Your task to perform on an android device: open app "Adobe Express: Graphic Design" (install if not already installed) and enter user name: "deliveries@gmail.com" and password: "regimentation" Image 0: 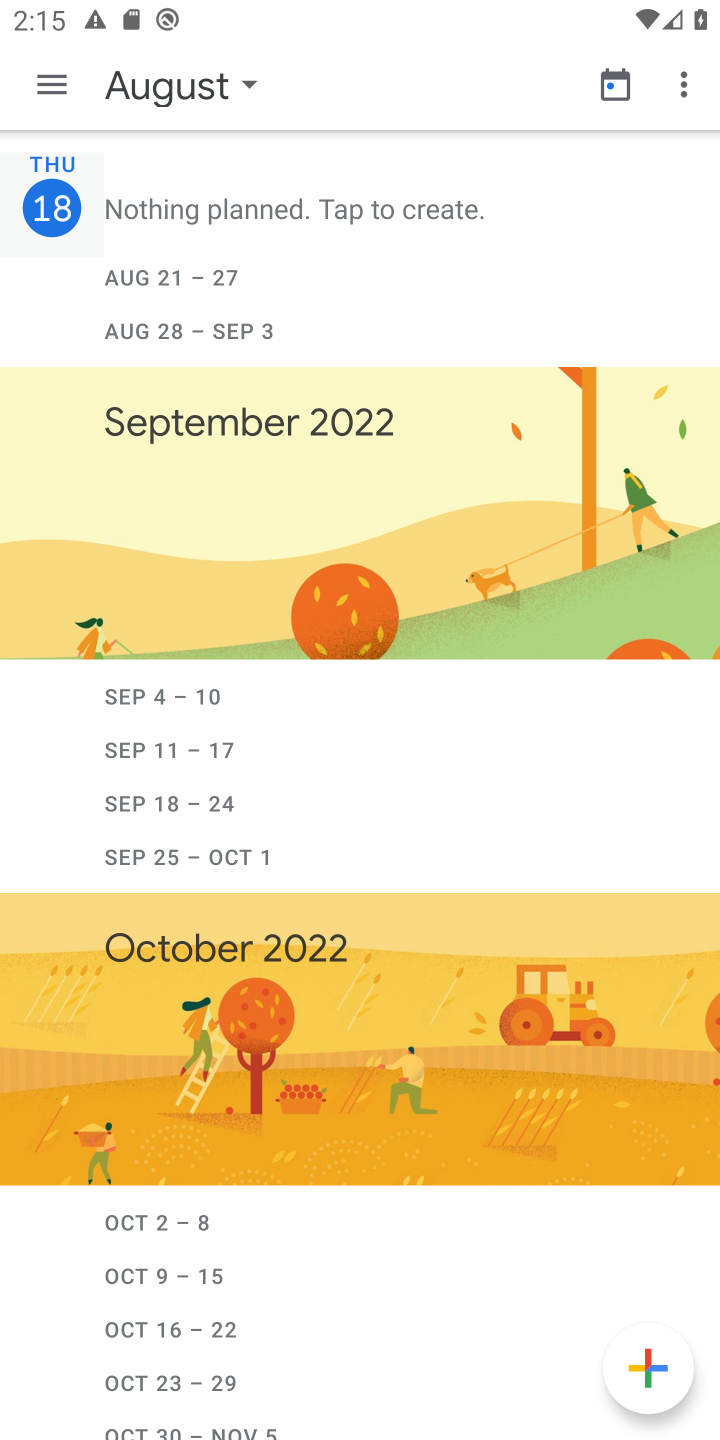
Step 0: press home button
Your task to perform on an android device: open app "Adobe Express: Graphic Design" (install if not already installed) and enter user name: "deliveries@gmail.com" and password: "regimentation" Image 1: 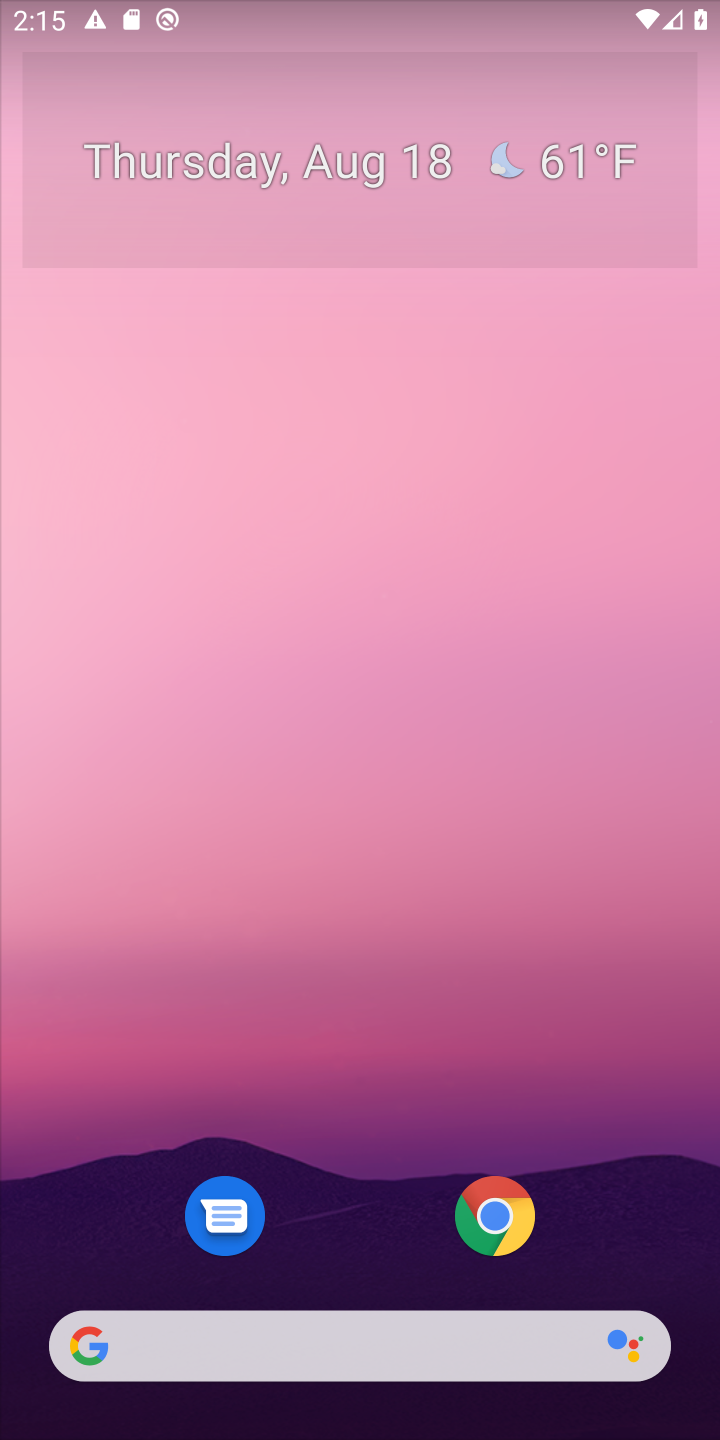
Step 1: drag from (653, 1135) to (608, 275)
Your task to perform on an android device: open app "Adobe Express: Graphic Design" (install if not already installed) and enter user name: "deliveries@gmail.com" and password: "regimentation" Image 2: 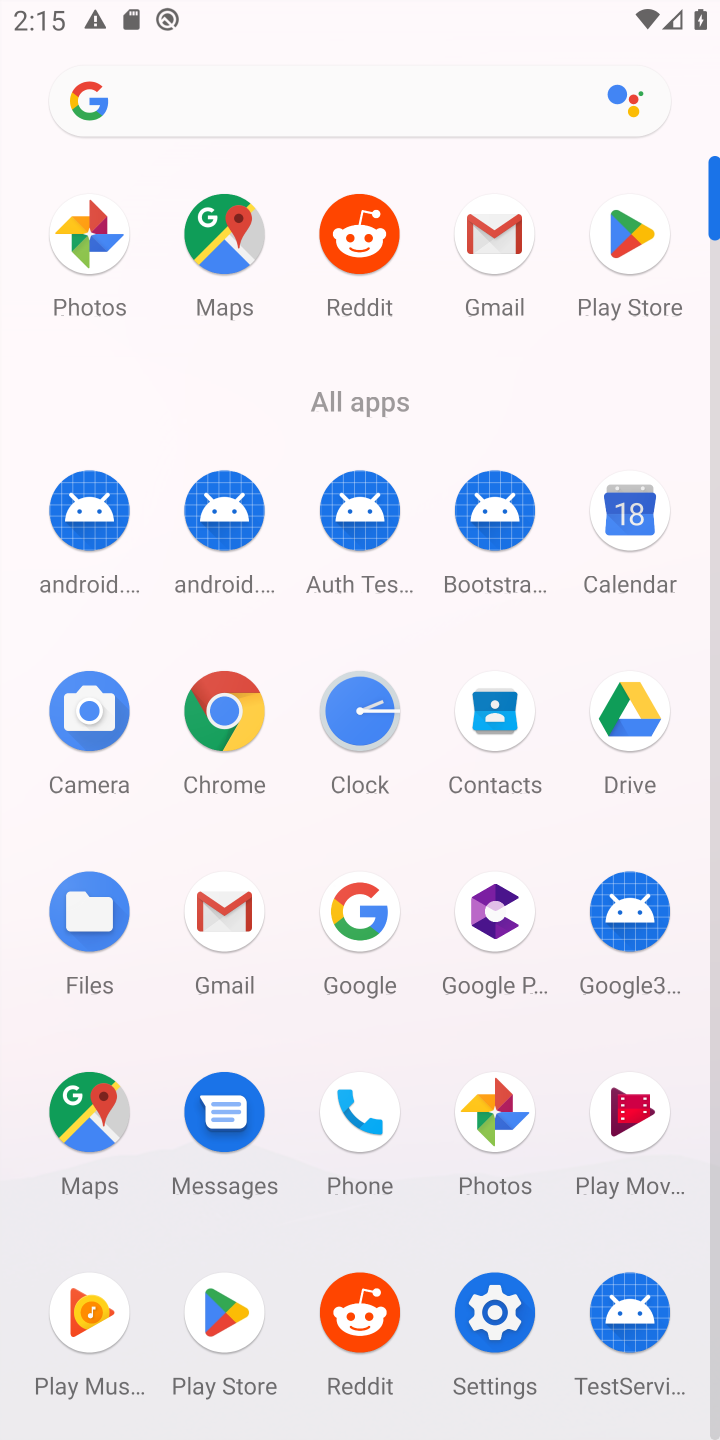
Step 2: click (223, 1312)
Your task to perform on an android device: open app "Adobe Express: Graphic Design" (install if not already installed) and enter user name: "deliveries@gmail.com" and password: "regimentation" Image 3: 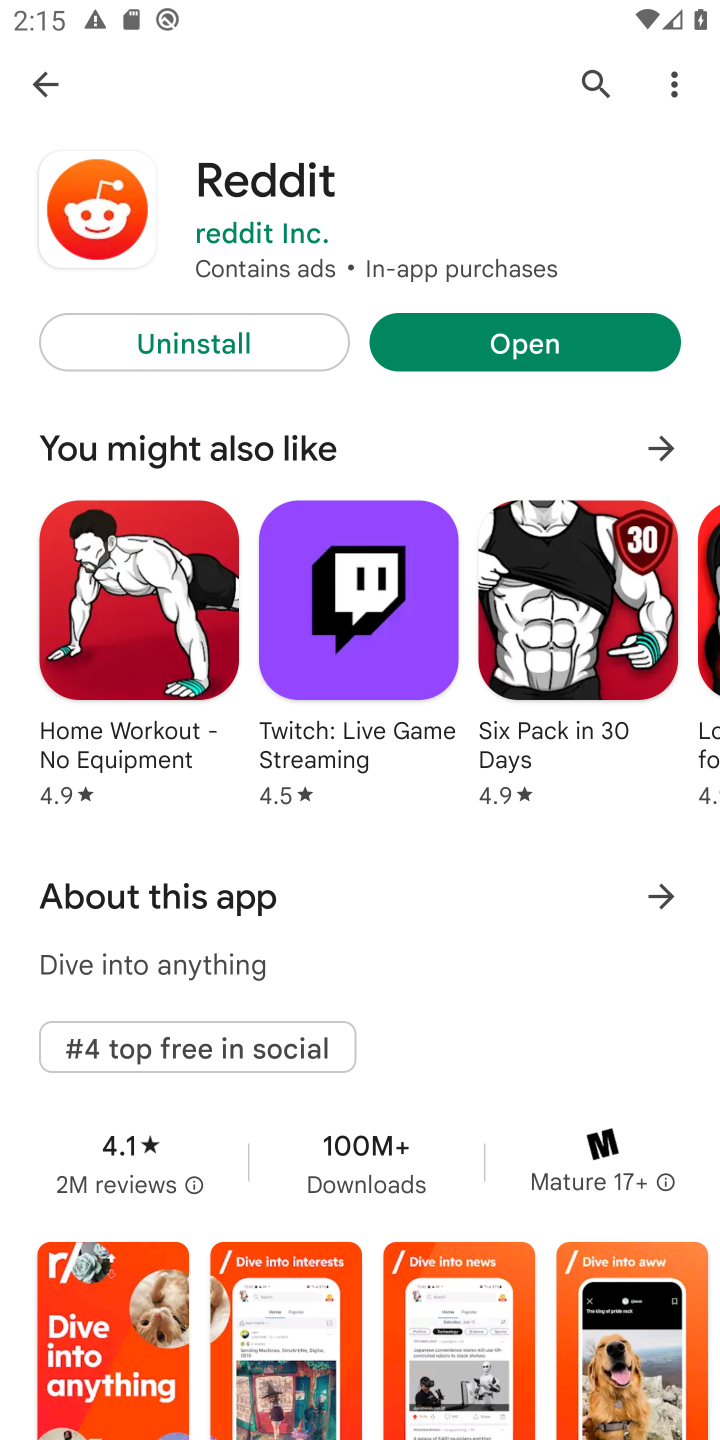
Step 3: click (588, 71)
Your task to perform on an android device: open app "Adobe Express: Graphic Design" (install if not already installed) and enter user name: "deliveries@gmail.com" and password: "regimentation" Image 4: 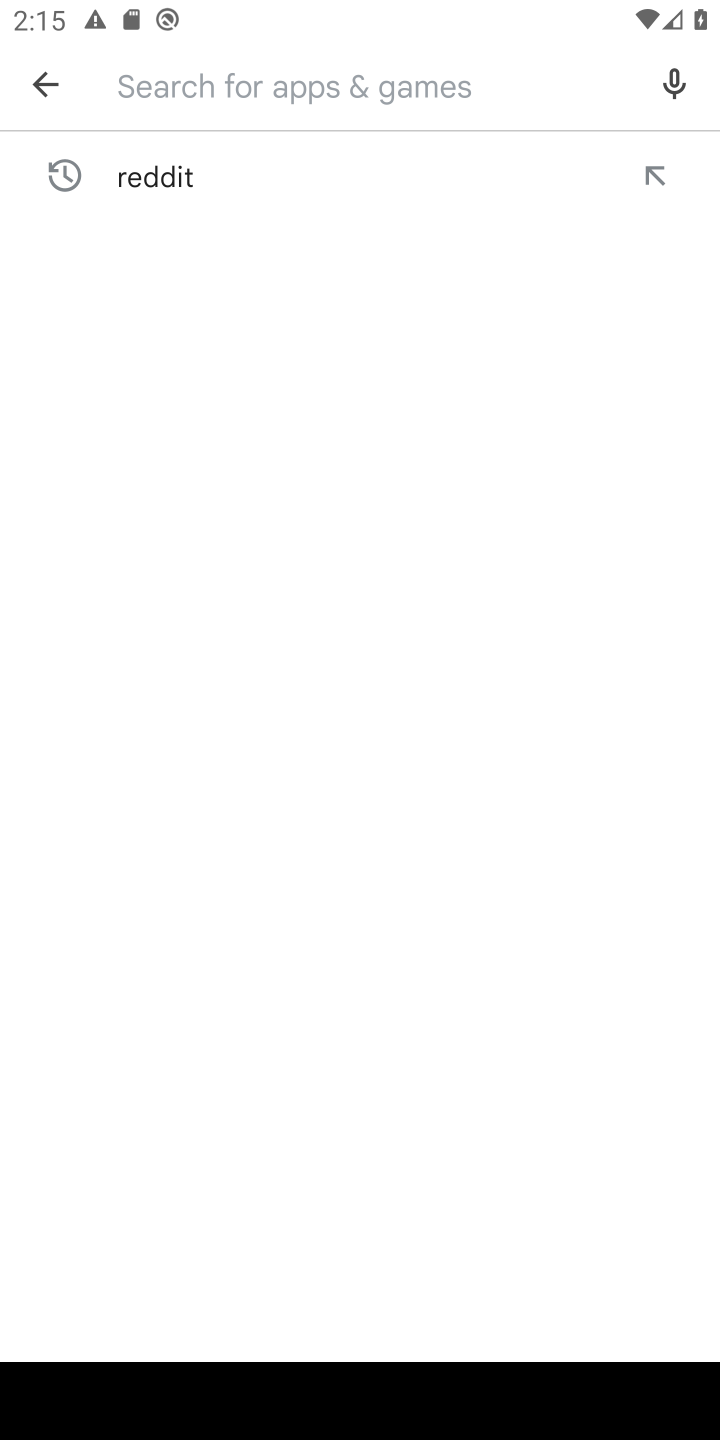
Step 4: type "Adobe Express: Graphic Design"
Your task to perform on an android device: open app "Adobe Express: Graphic Design" (install if not already installed) and enter user name: "deliveries@gmail.com" and password: "regimentation" Image 5: 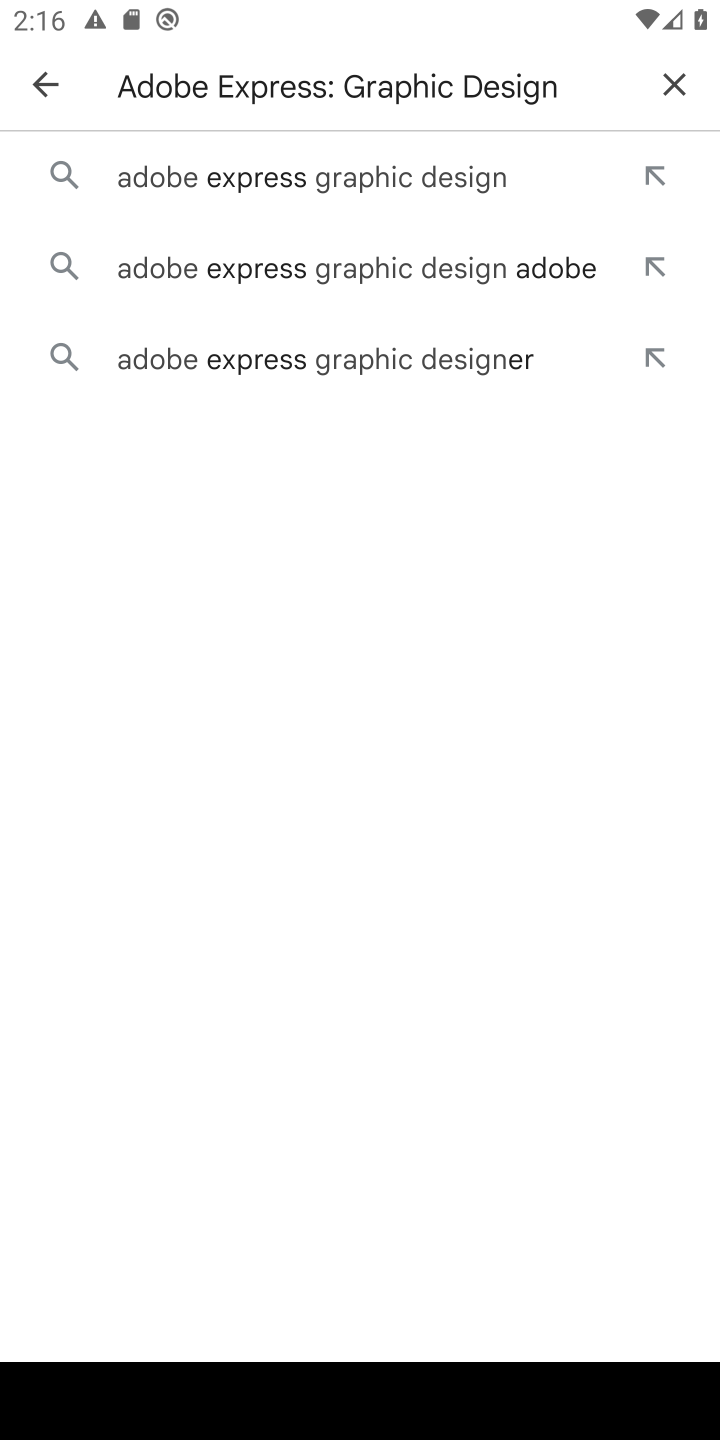
Step 5: click (286, 159)
Your task to perform on an android device: open app "Adobe Express: Graphic Design" (install if not already installed) and enter user name: "deliveries@gmail.com" and password: "regimentation" Image 6: 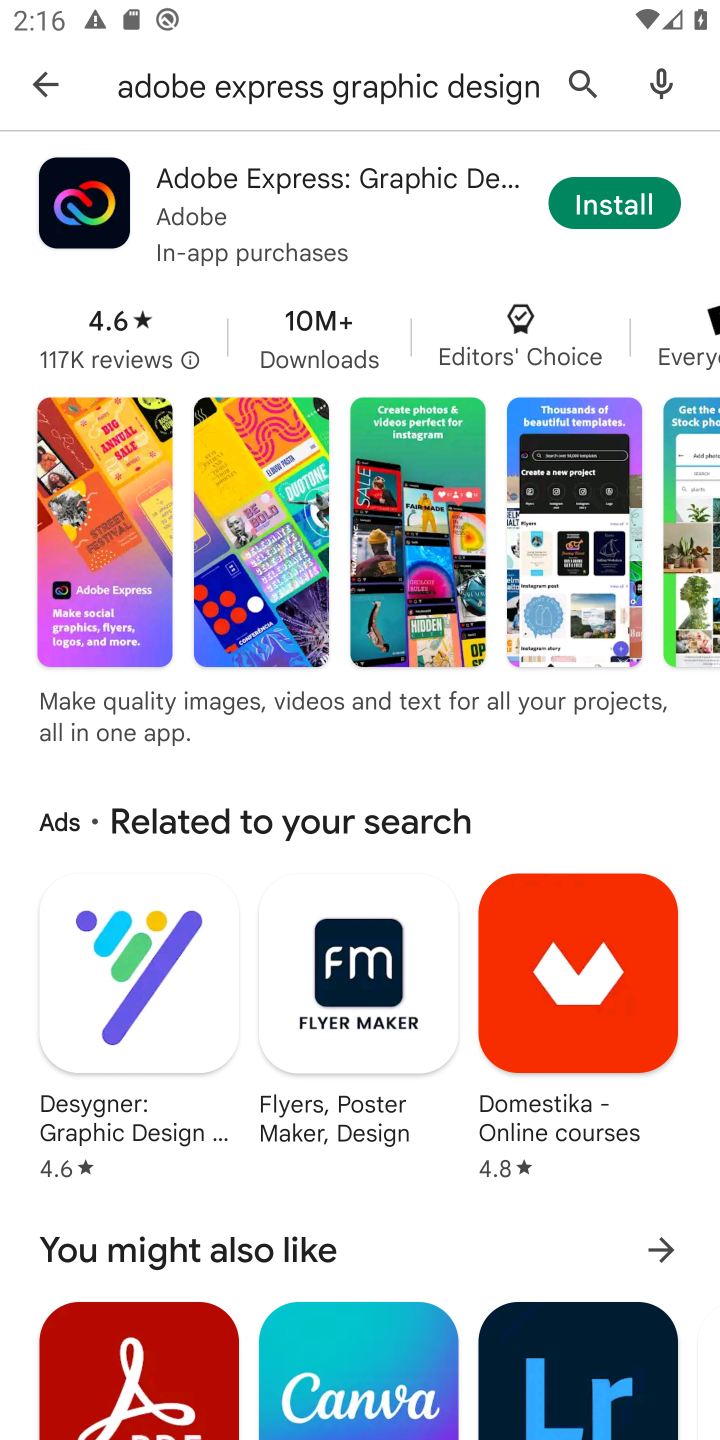
Step 6: click (607, 206)
Your task to perform on an android device: open app "Adobe Express: Graphic Design" (install if not already installed) and enter user name: "deliveries@gmail.com" and password: "regimentation" Image 7: 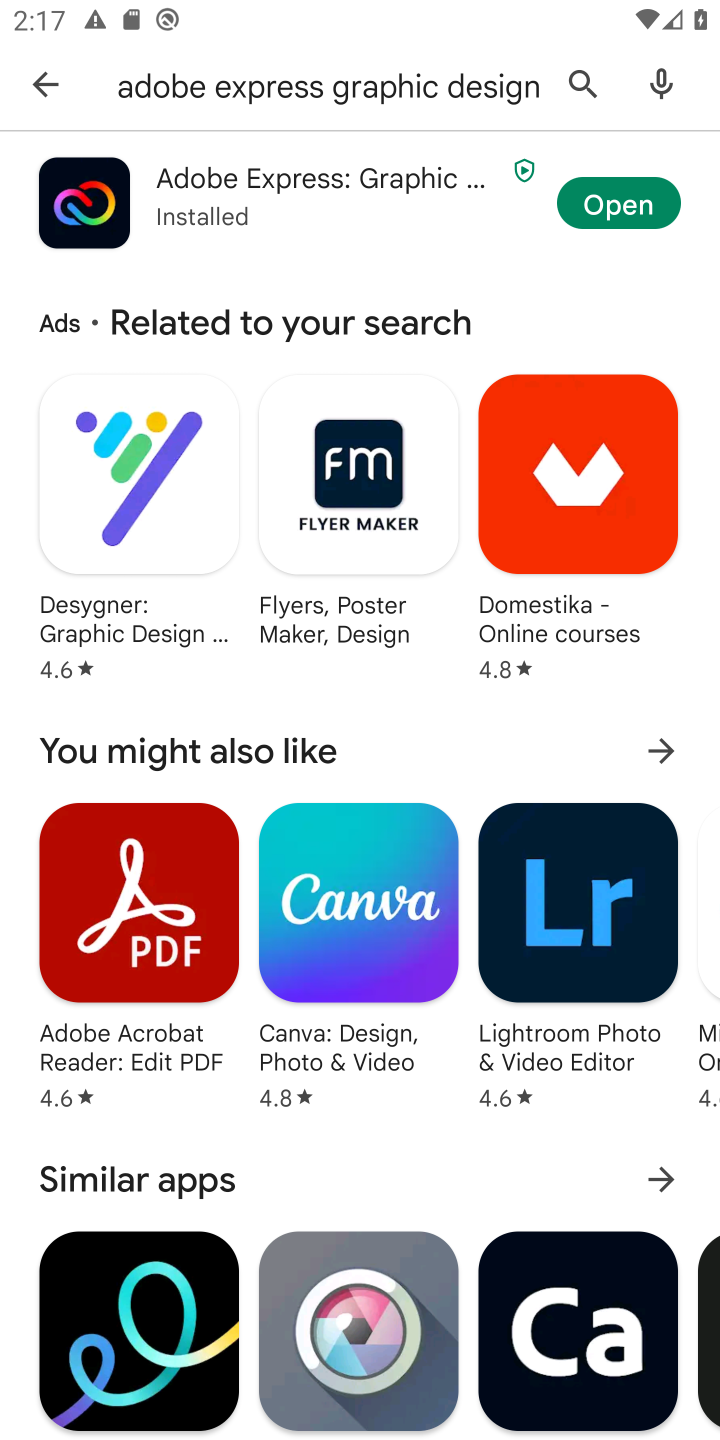
Step 7: click (614, 200)
Your task to perform on an android device: open app "Adobe Express: Graphic Design" (install if not already installed) and enter user name: "deliveries@gmail.com" and password: "regimentation" Image 8: 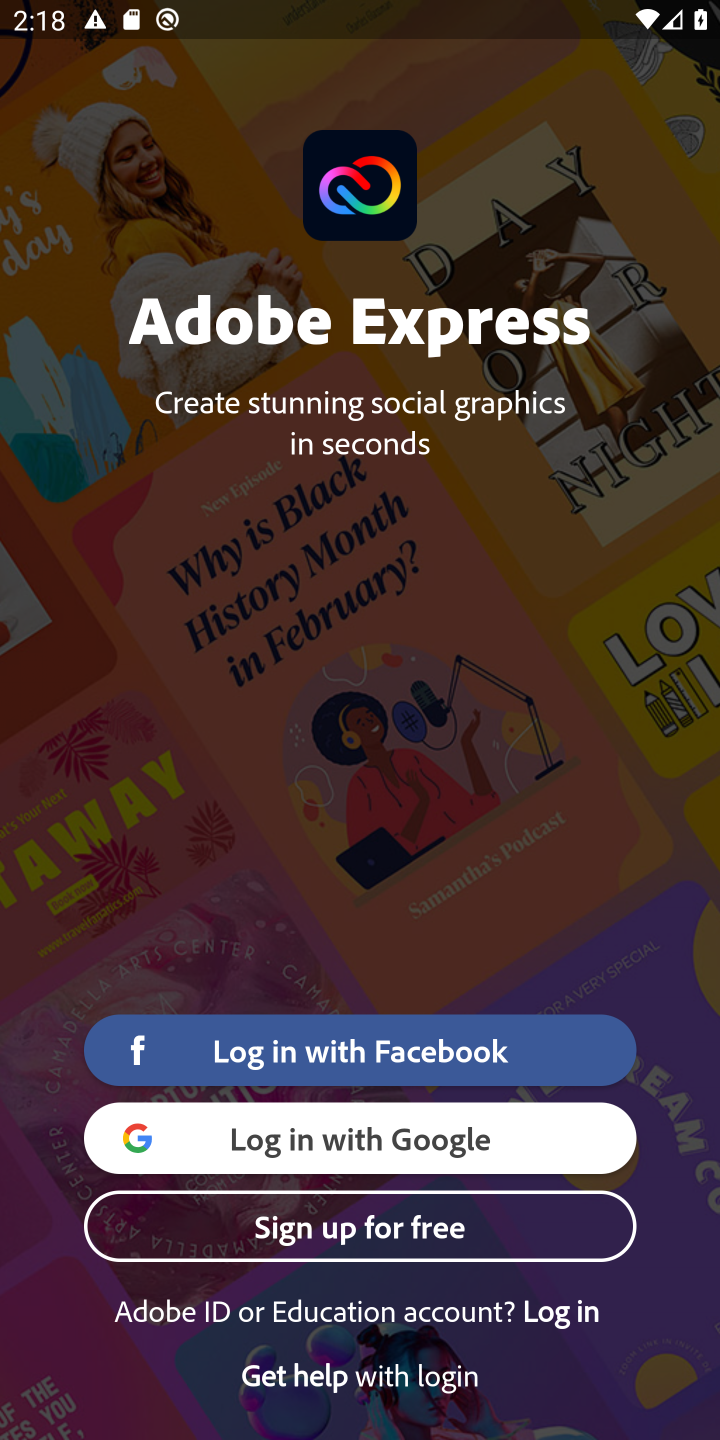
Step 8: click (561, 1315)
Your task to perform on an android device: open app "Adobe Express: Graphic Design" (install if not already installed) and enter user name: "deliveries@gmail.com" and password: "regimentation" Image 9: 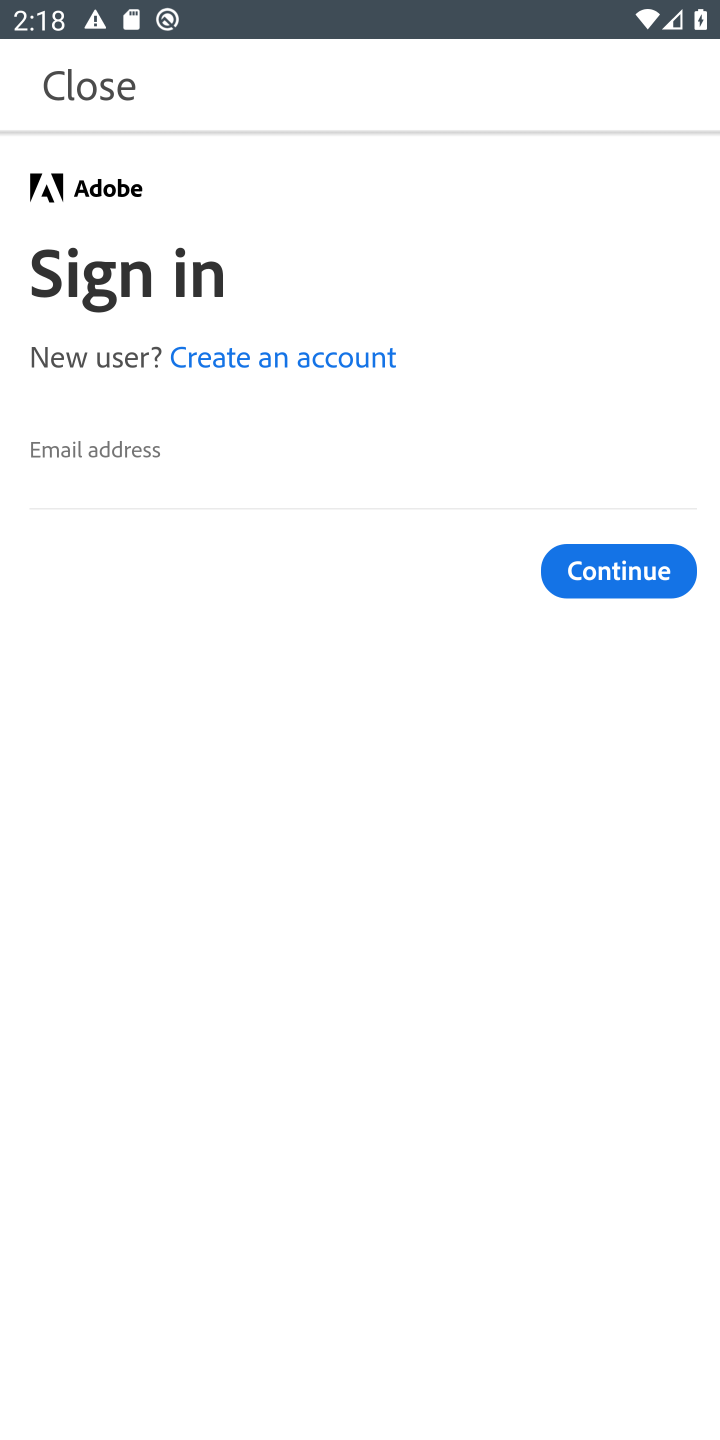
Step 9: click (160, 423)
Your task to perform on an android device: open app "Adobe Express: Graphic Design" (install if not already installed) and enter user name: "deliveries@gmail.com" and password: "regimentation" Image 10: 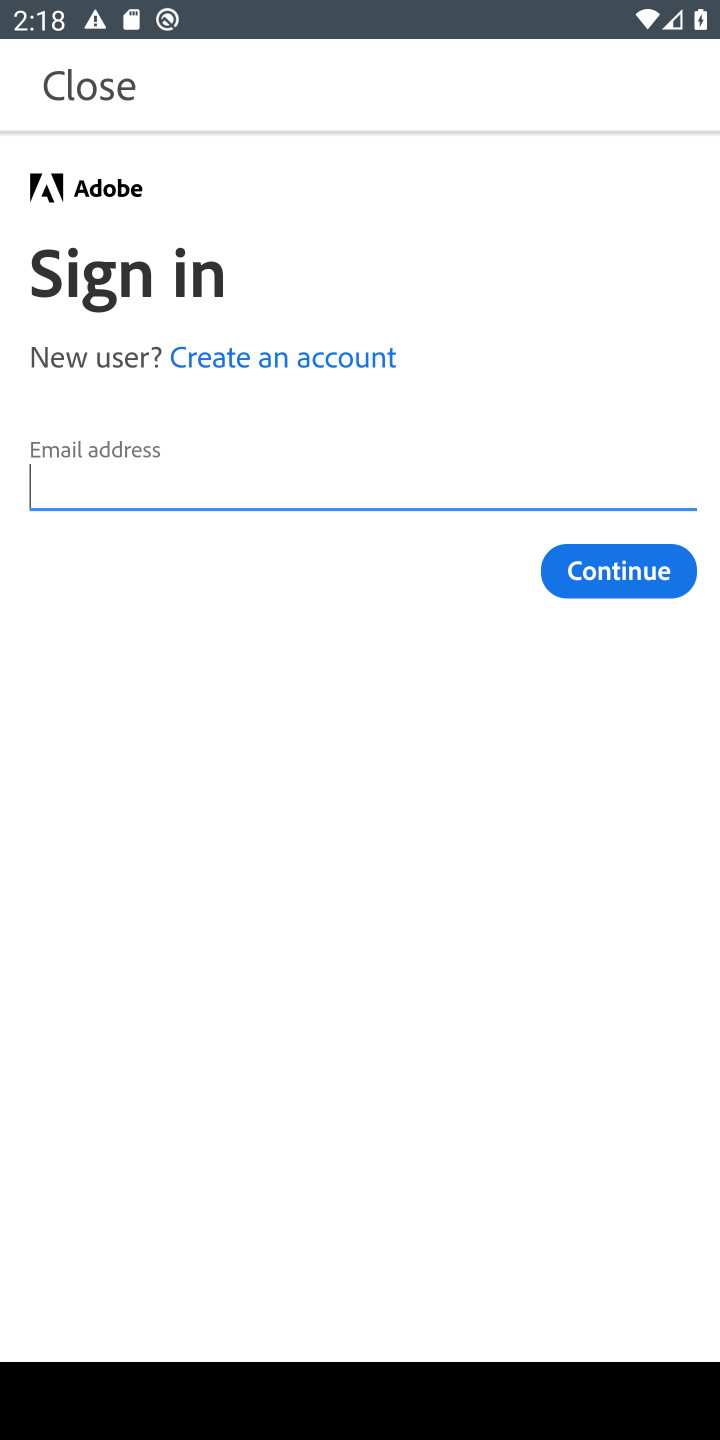
Step 10: type "deliveries@gmail.com"
Your task to perform on an android device: open app "Adobe Express: Graphic Design" (install if not already installed) and enter user name: "deliveries@gmail.com" and password: "regimentation" Image 11: 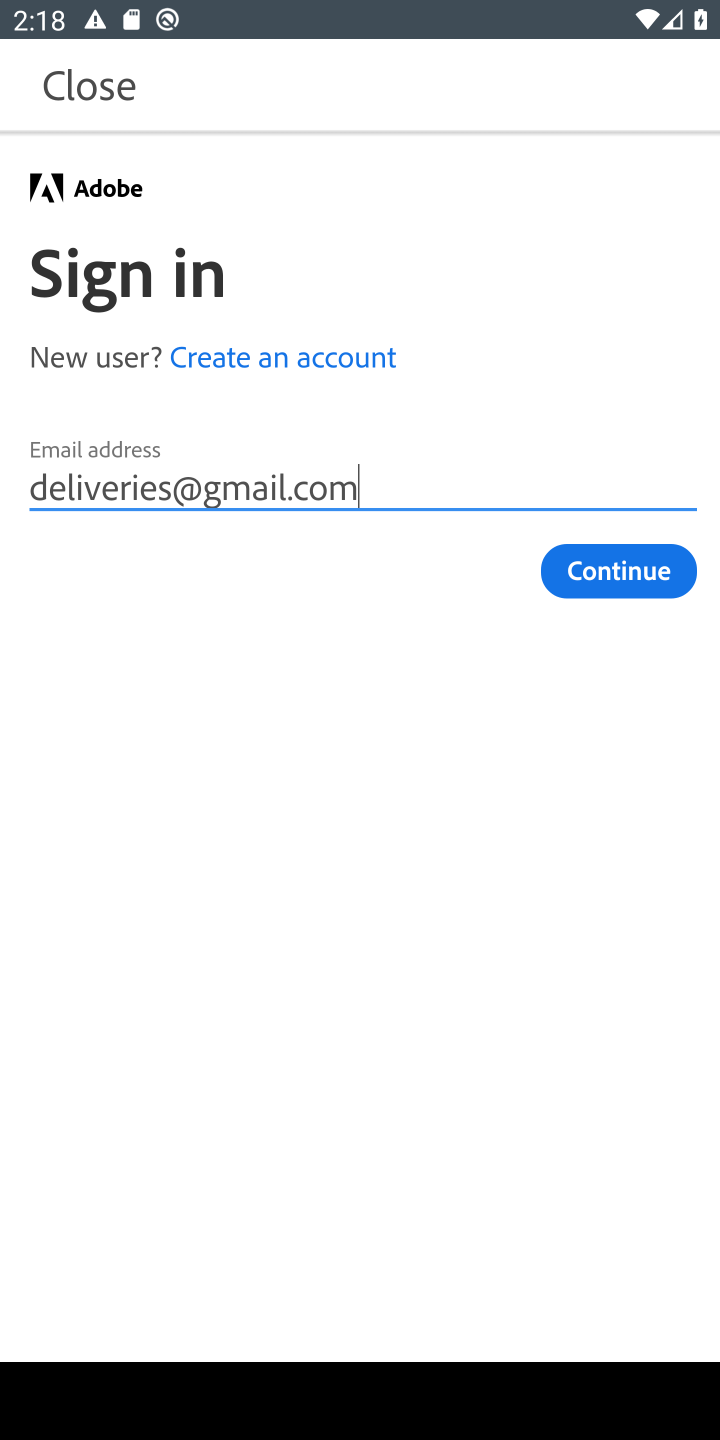
Step 11: click (588, 564)
Your task to perform on an android device: open app "Adobe Express: Graphic Design" (install if not already installed) and enter user name: "deliveries@gmail.com" and password: "regimentation" Image 12: 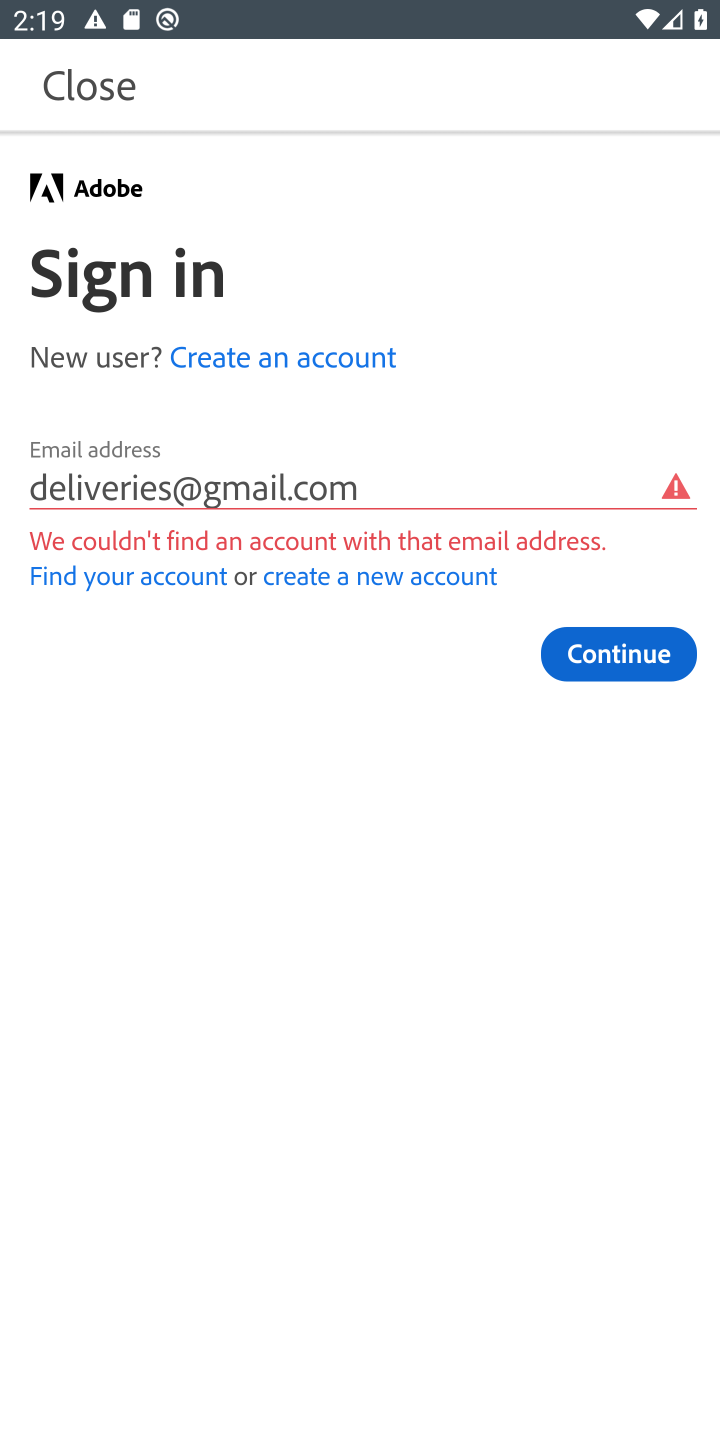
Step 12: task complete